Your task to perform on an android device: turn vacation reply on in the gmail app Image 0: 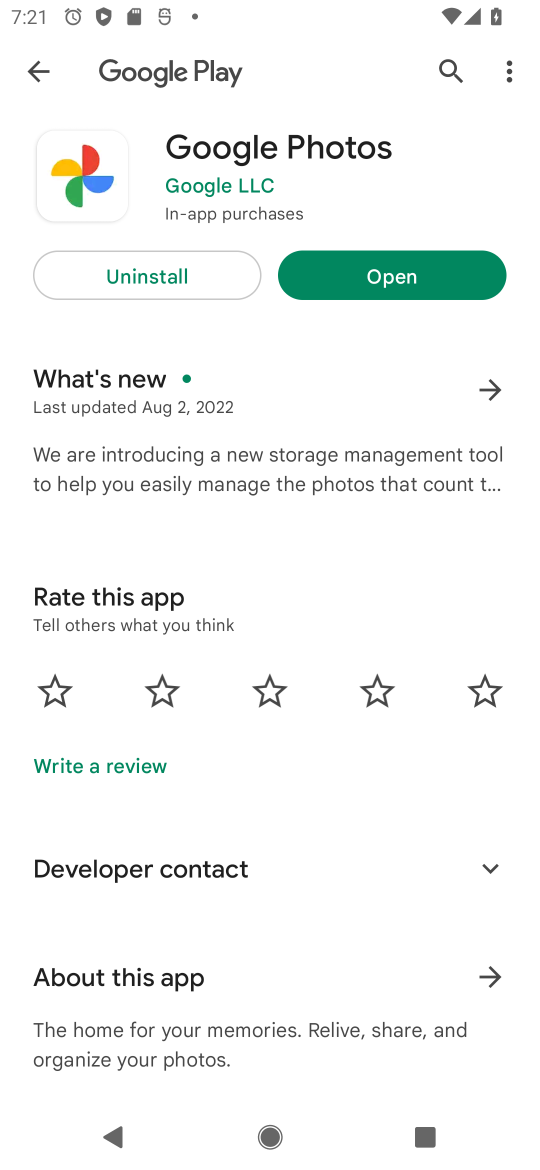
Step 0: press home button
Your task to perform on an android device: turn vacation reply on in the gmail app Image 1: 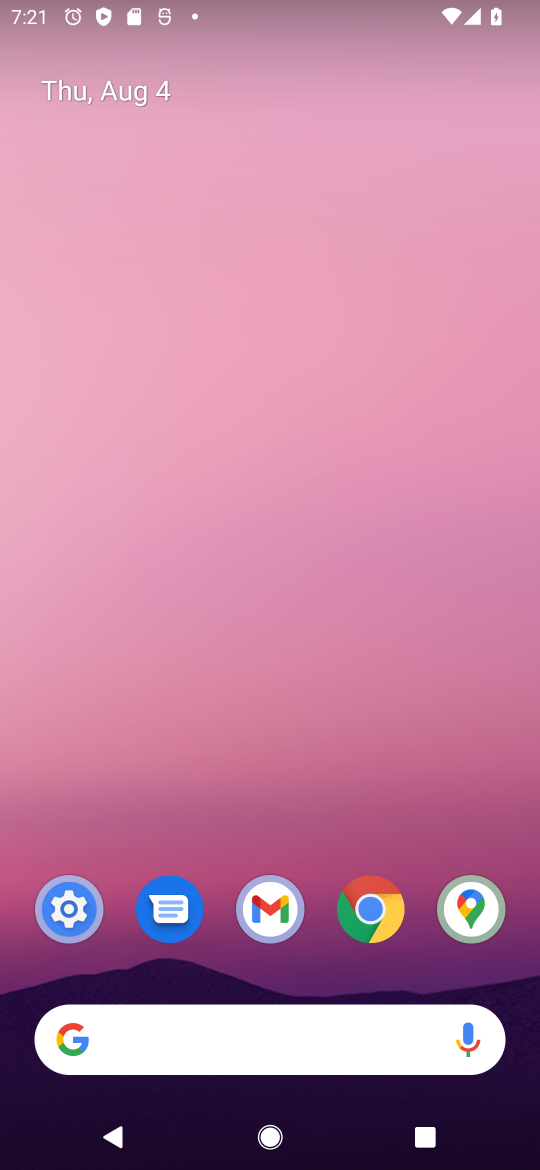
Step 1: drag from (120, 901) to (315, 9)
Your task to perform on an android device: turn vacation reply on in the gmail app Image 2: 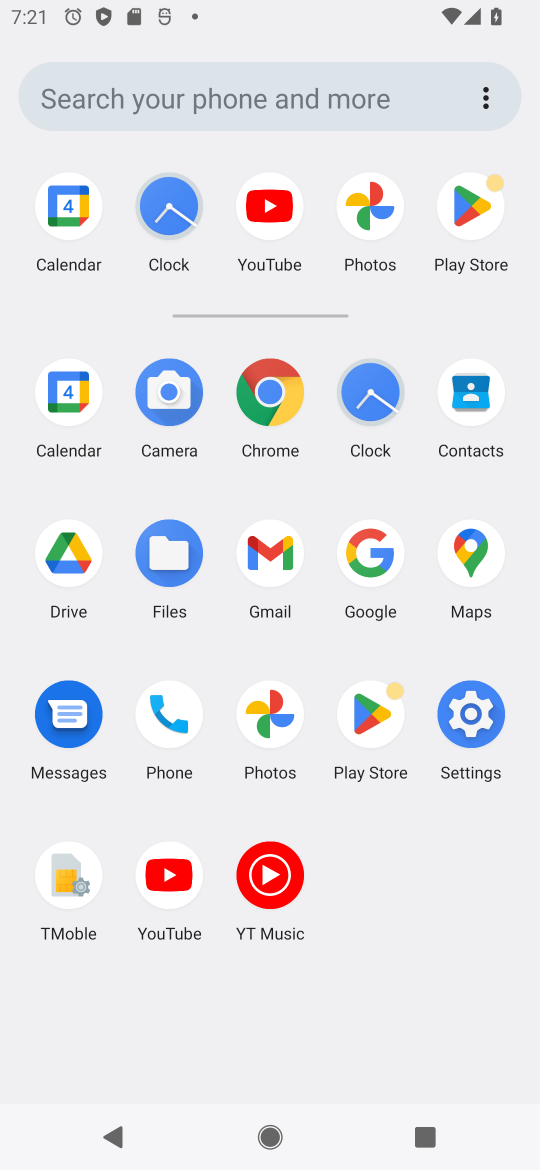
Step 2: click (256, 574)
Your task to perform on an android device: turn vacation reply on in the gmail app Image 3: 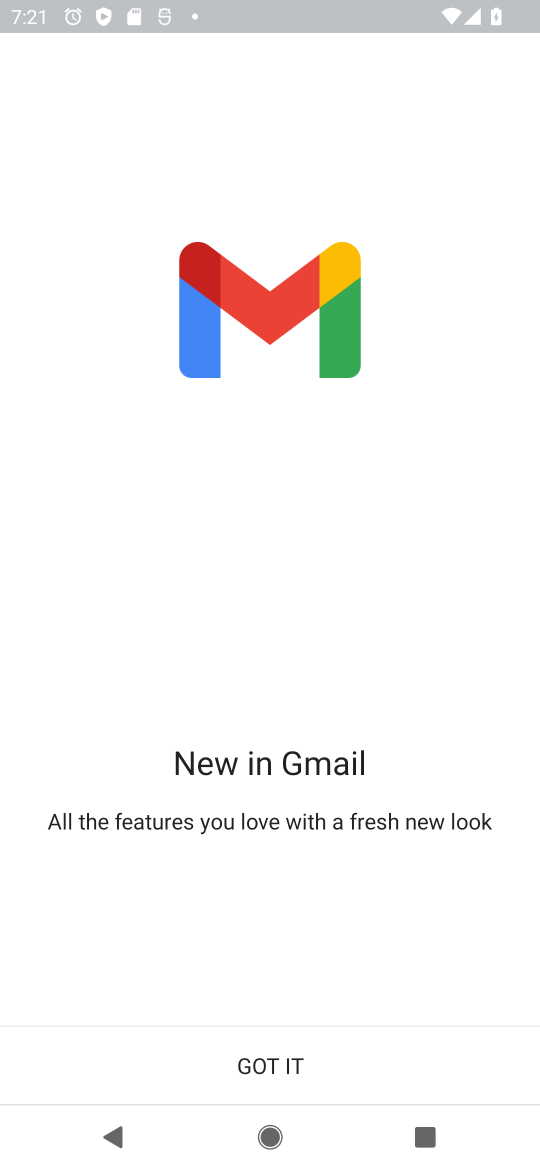
Step 3: click (235, 1071)
Your task to perform on an android device: turn vacation reply on in the gmail app Image 4: 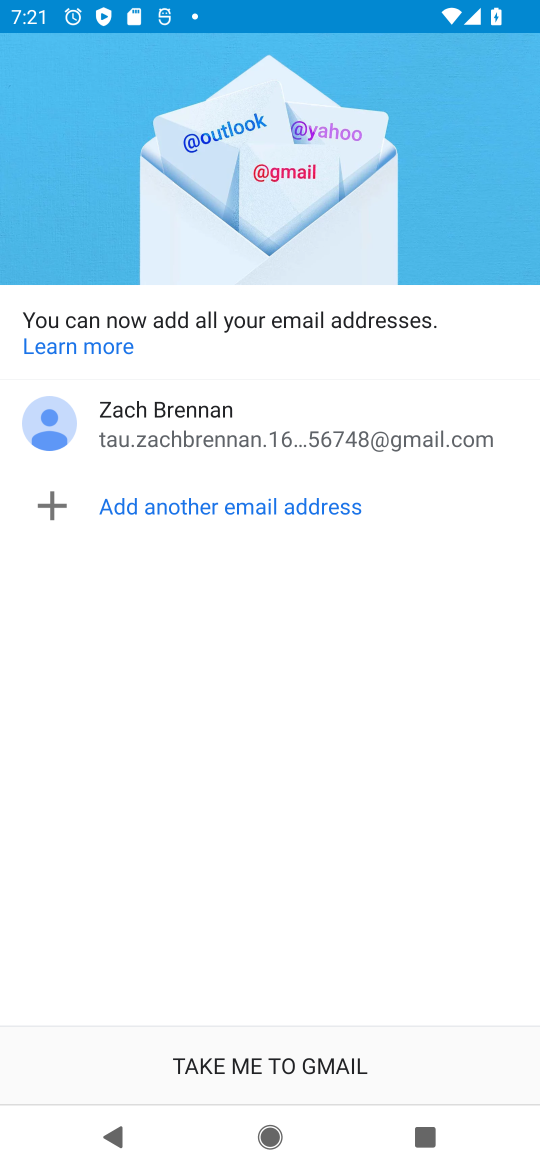
Step 4: click (233, 1069)
Your task to perform on an android device: turn vacation reply on in the gmail app Image 5: 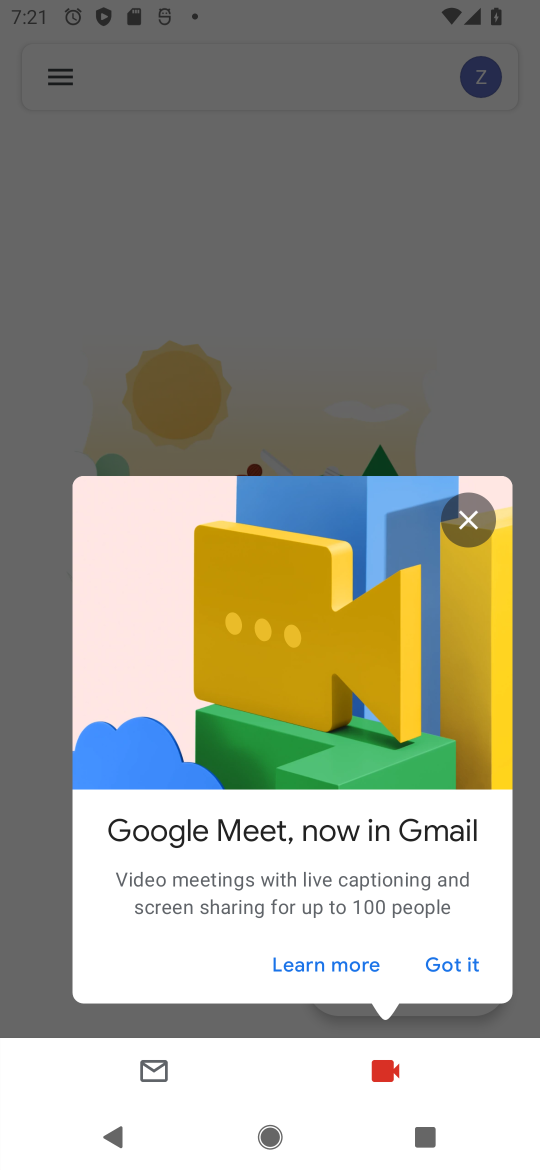
Step 5: click (466, 533)
Your task to perform on an android device: turn vacation reply on in the gmail app Image 6: 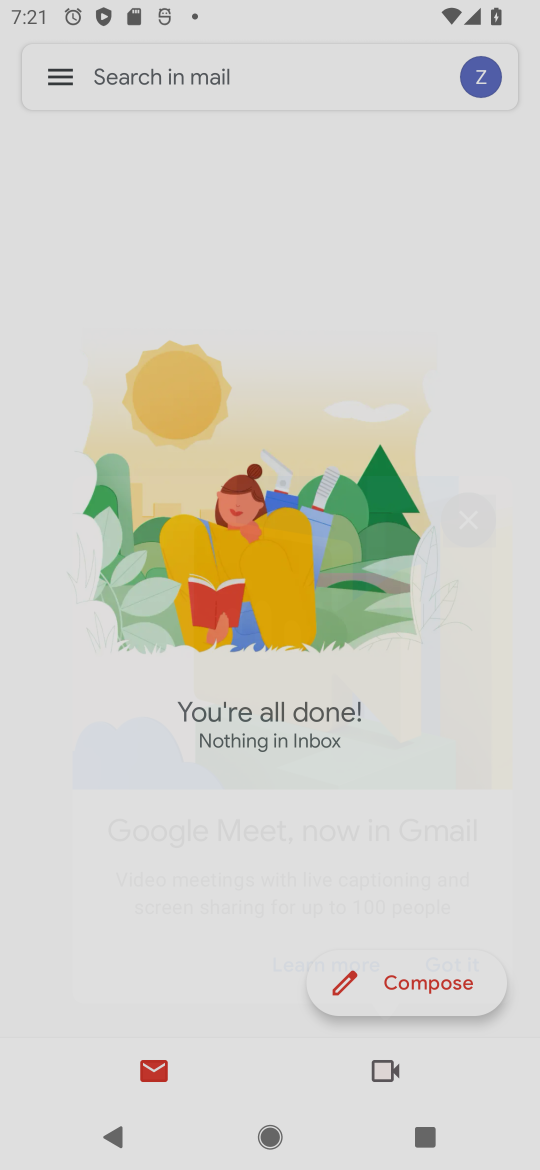
Step 6: click (50, 76)
Your task to perform on an android device: turn vacation reply on in the gmail app Image 7: 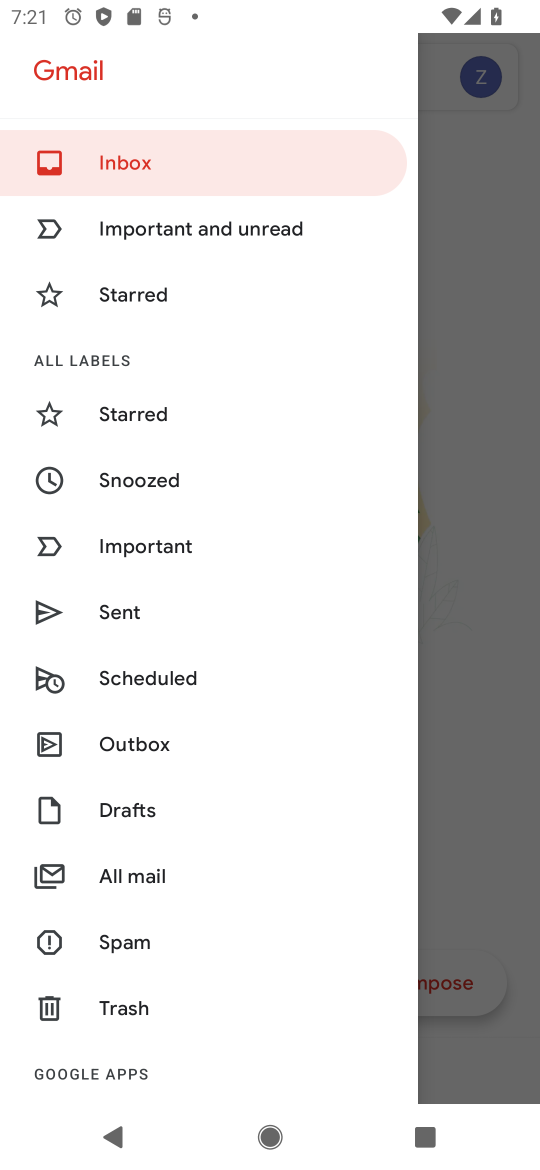
Step 7: drag from (114, 692) to (163, 264)
Your task to perform on an android device: turn vacation reply on in the gmail app Image 8: 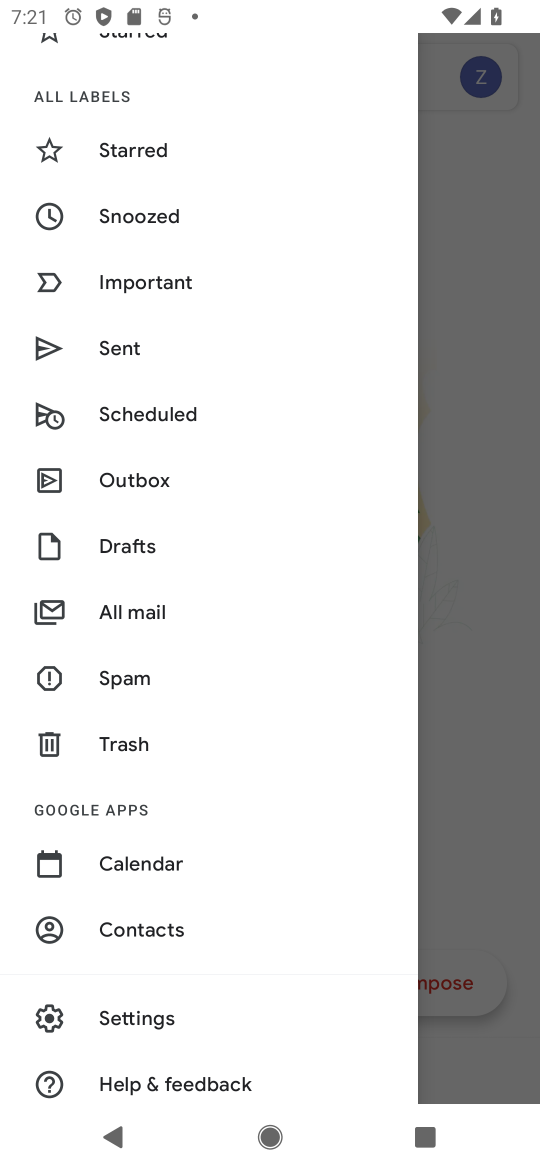
Step 8: click (171, 1024)
Your task to perform on an android device: turn vacation reply on in the gmail app Image 9: 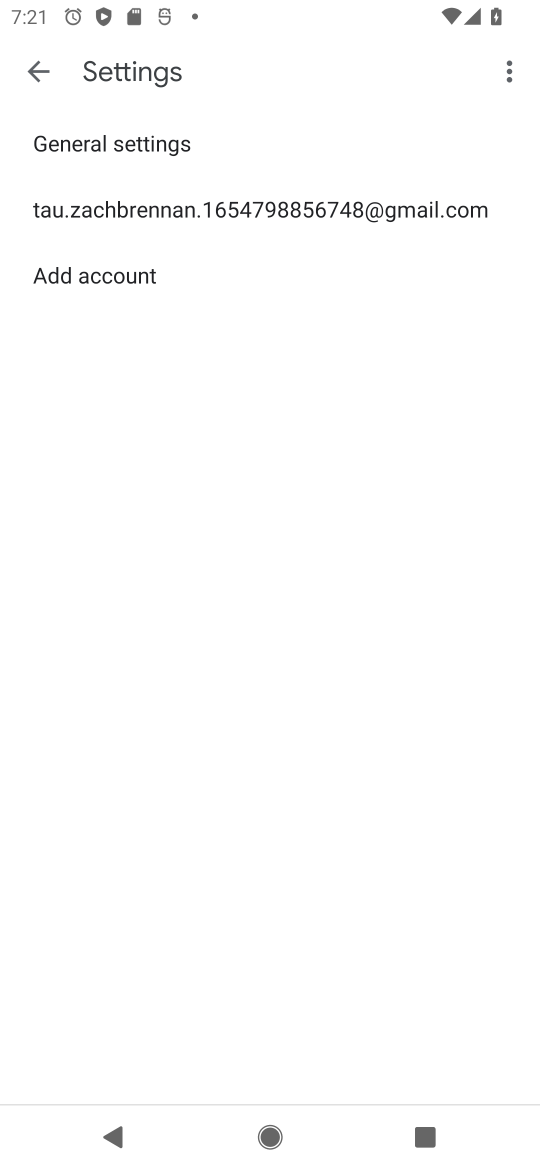
Step 9: click (57, 225)
Your task to perform on an android device: turn vacation reply on in the gmail app Image 10: 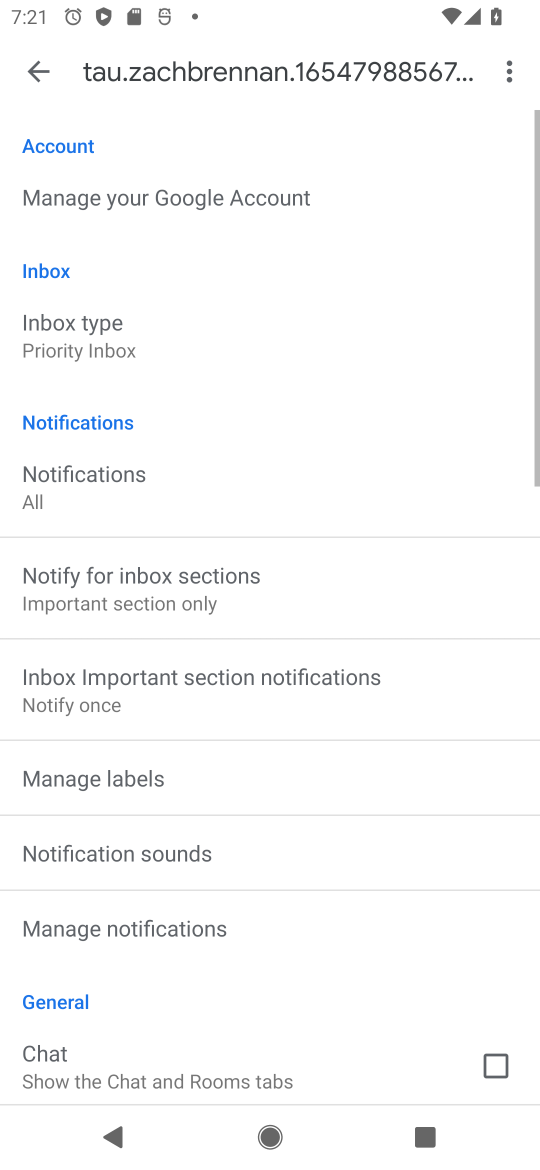
Step 10: drag from (187, 979) to (139, 401)
Your task to perform on an android device: turn vacation reply on in the gmail app Image 11: 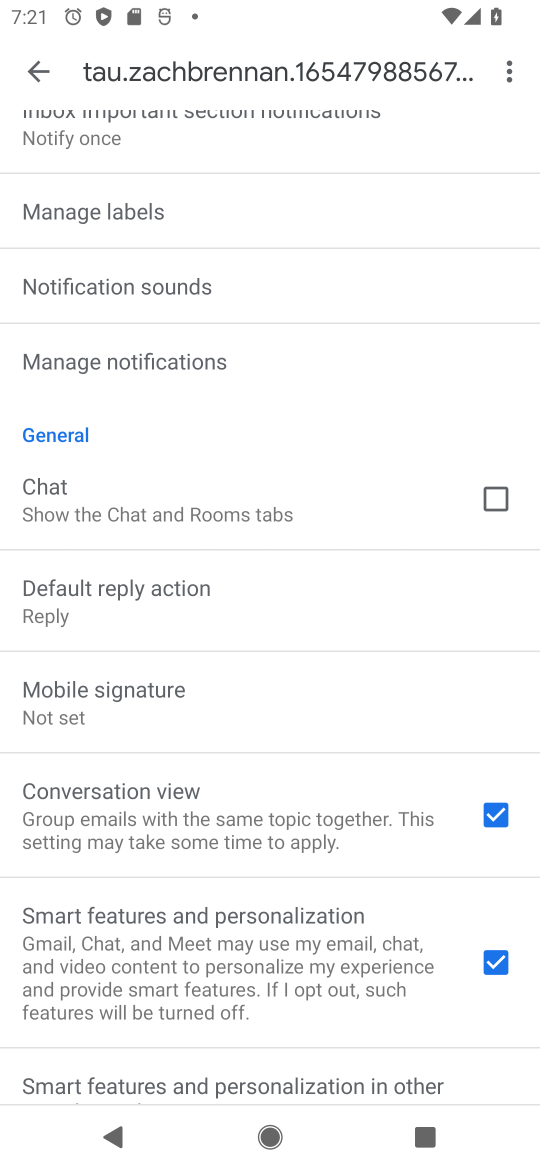
Step 11: drag from (92, 987) to (63, 386)
Your task to perform on an android device: turn vacation reply on in the gmail app Image 12: 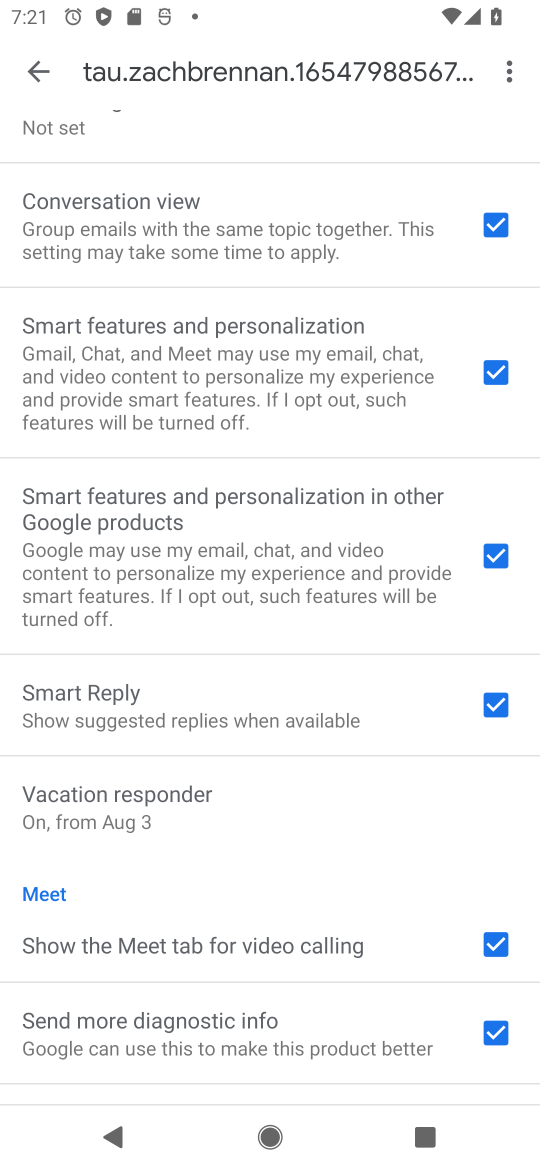
Step 12: click (110, 815)
Your task to perform on an android device: turn vacation reply on in the gmail app Image 13: 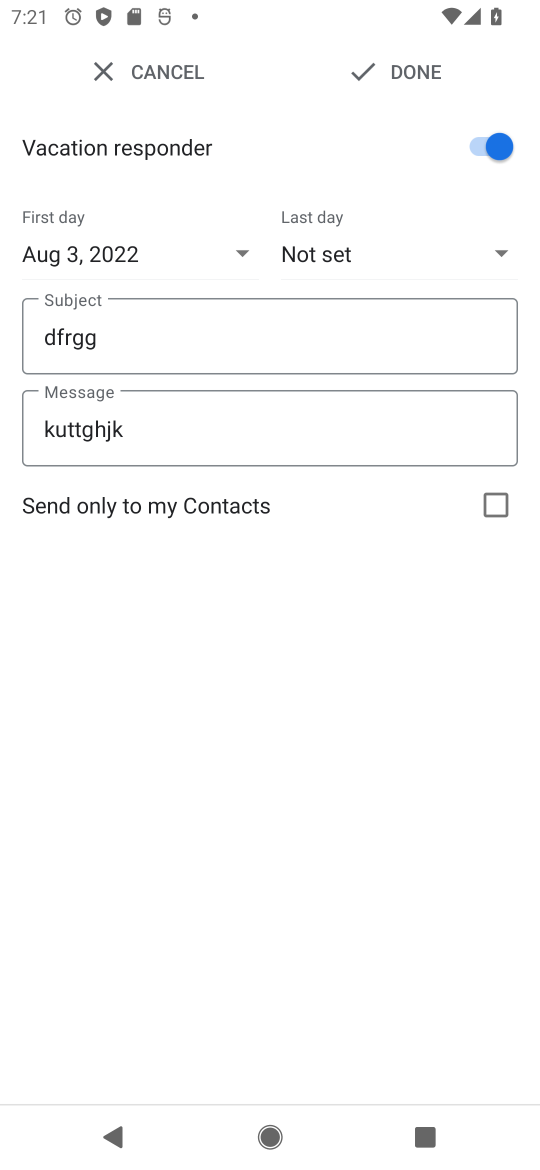
Step 13: task complete